Your task to perform on an android device: read, delete, or share a saved page in the chrome app Image 0: 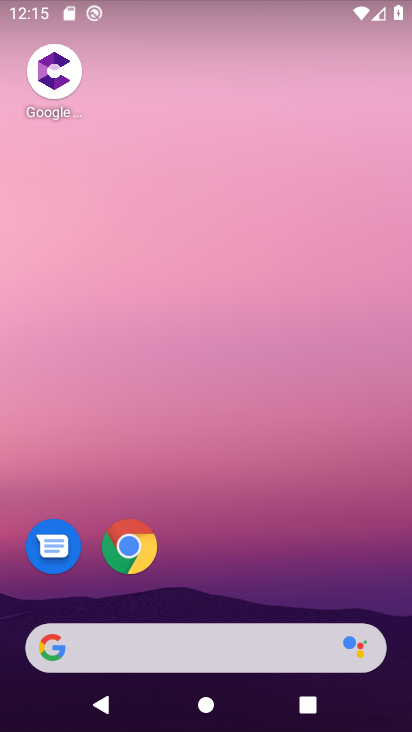
Step 0: click (128, 547)
Your task to perform on an android device: read, delete, or share a saved page in the chrome app Image 1: 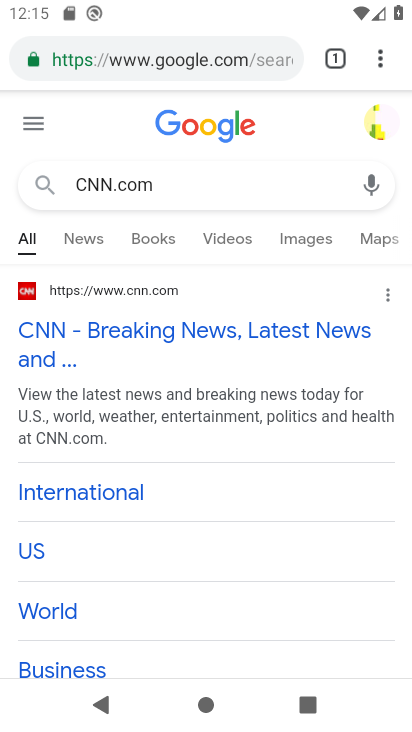
Step 1: click (380, 59)
Your task to perform on an android device: read, delete, or share a saved page in the chrome app Image 2: 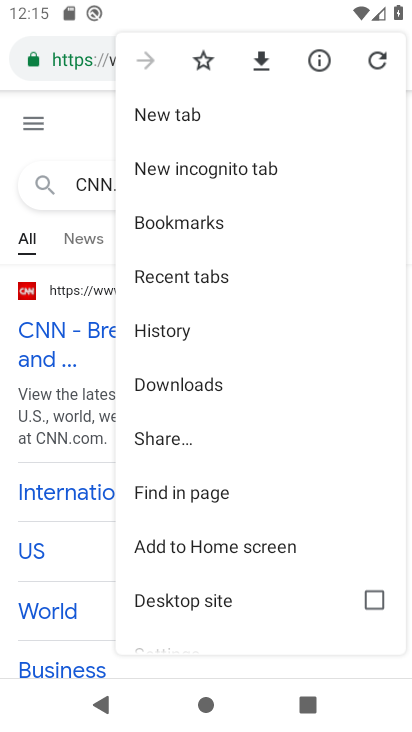
Step 2: click (201, 228)
Your task to perform on an android device: read, delete, or share a saved page in the chrome app Image 3: 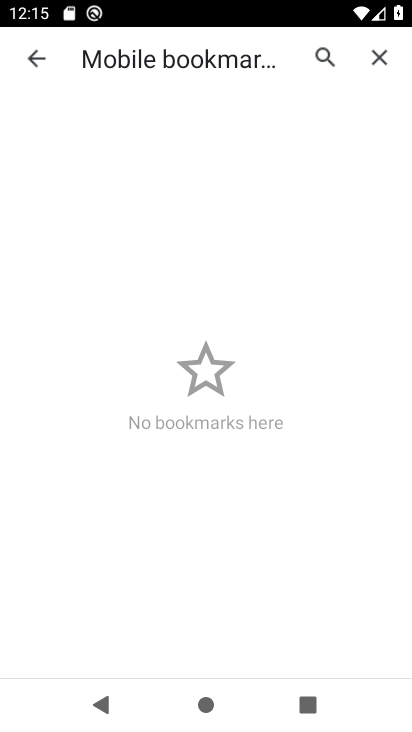
Step 3: task complete